Your task to perform on an android device: make emails show in primary in the gmail app Image 0: 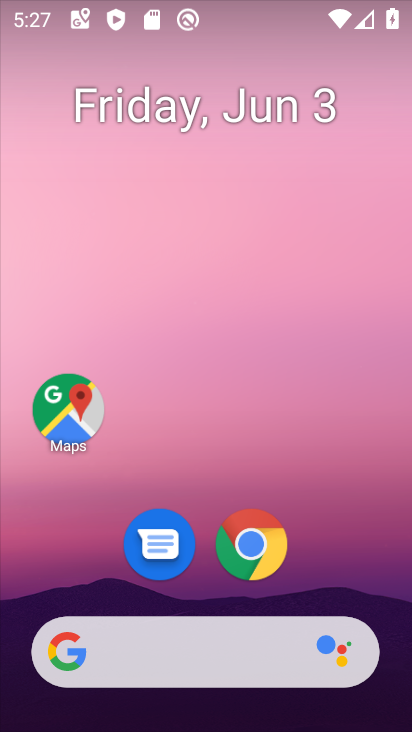
Step 0: drag from (313, 556) to (326, 110)
Your task to perform on an android device: make emails show in primary in the gmail app Image 1: 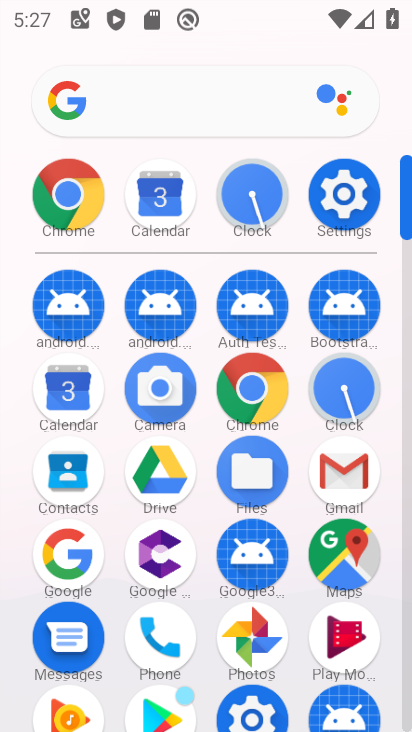
Step 1: click (343, 472)
Your task to perform on an android device: make emails show in primary in the gmail app Image 2: 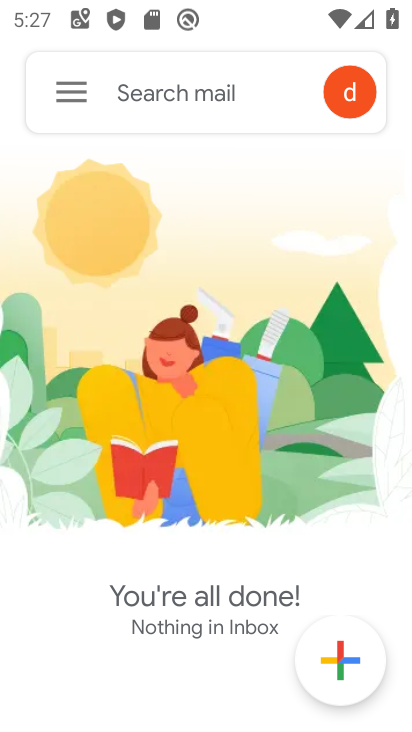
Step 2: task complete